Your task to perform on an android device: set the stopwatch Image 0: 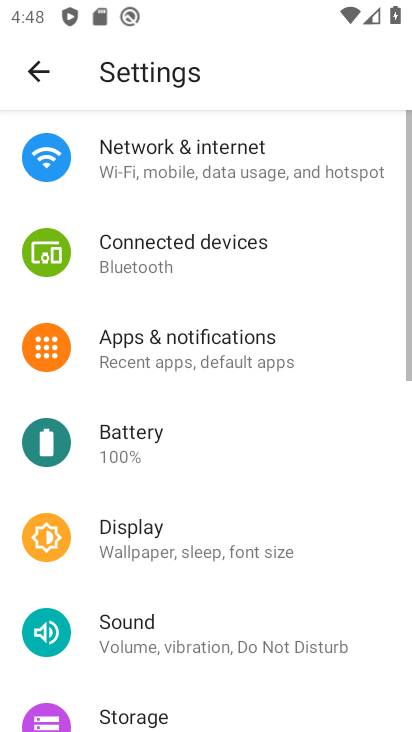
Step 0: press home button
Your task to perform on an android device: set the stopwatch Image 1: 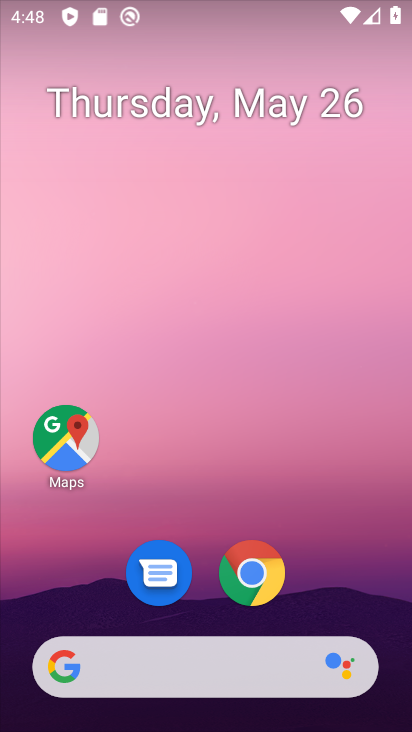
Step 1: drag from (291, 612) to (216, 123)
Your task to perform on an android device: set the stopwatch Image 2: 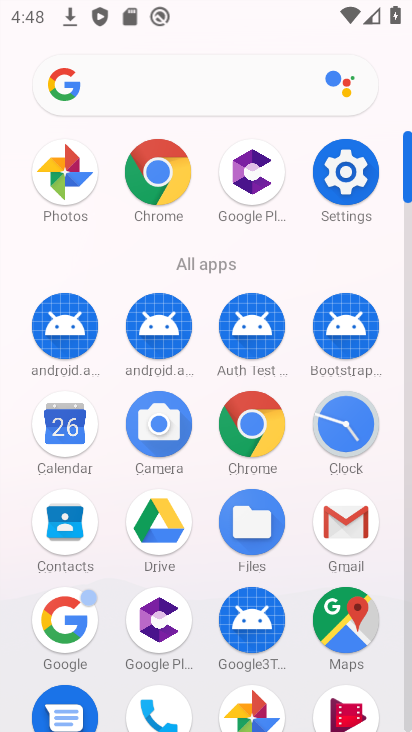
Step 2: click (338, 434)
Your task to perform on an android device: set the stopwatch Image 3: 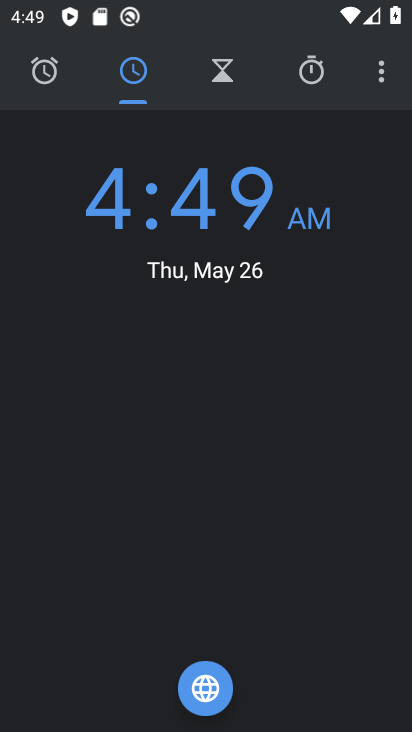
Step 3: click (382, 77)
Your task to perform on an android device: set the stopwatch Image 4: 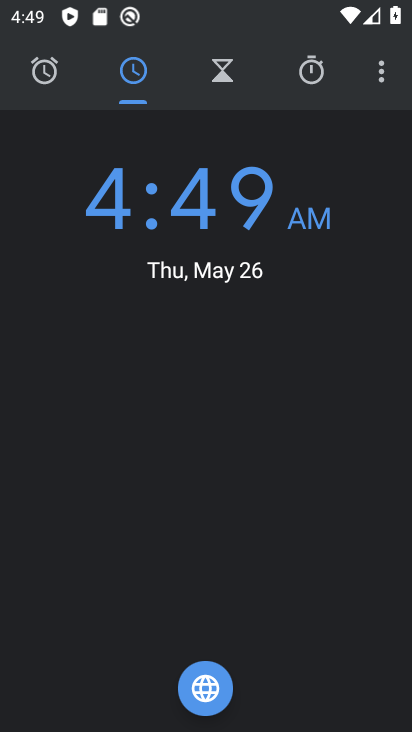
Step 4: click (311, 92)
Your task to perform on an android device: set the stopwatch Image 5: 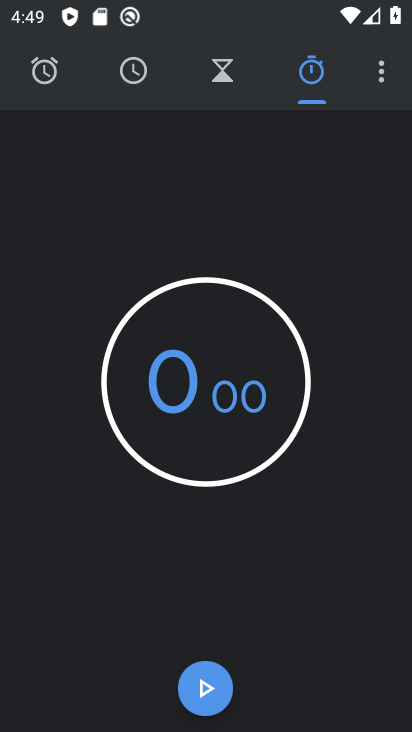
Step 5: click (204, 697)
Your task to perform on an android device: set the stopwatch Image 6: 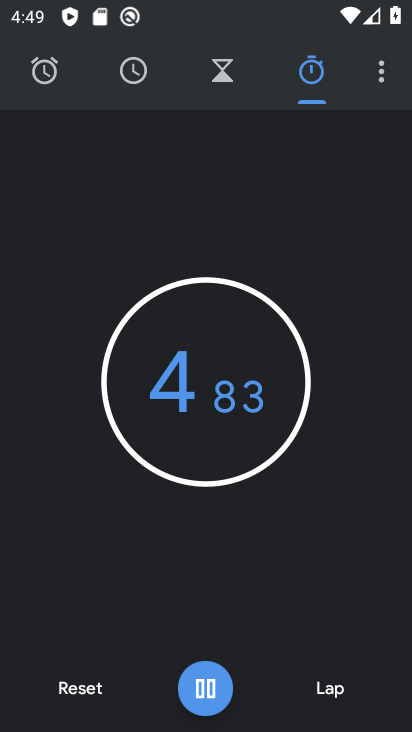
Step 6: click (204, 696)
Your task to perform on an android device: set the stopwatch Image 7: 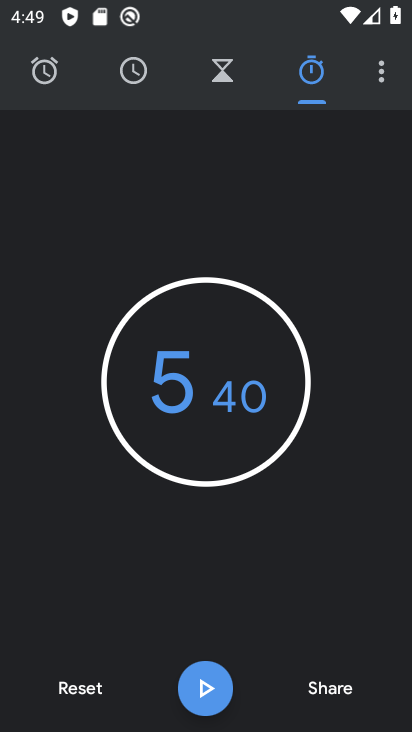
Step 7: task complete